Your task to perform on an android device: Search for Italian restaurants on Maps Image 0: 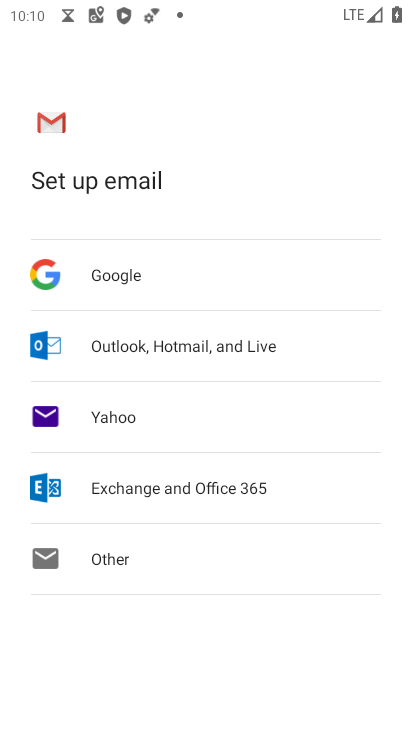
Step 0: press home button
Your task to perform on an android device: Search for Italian restaurants on Maps Image 1: 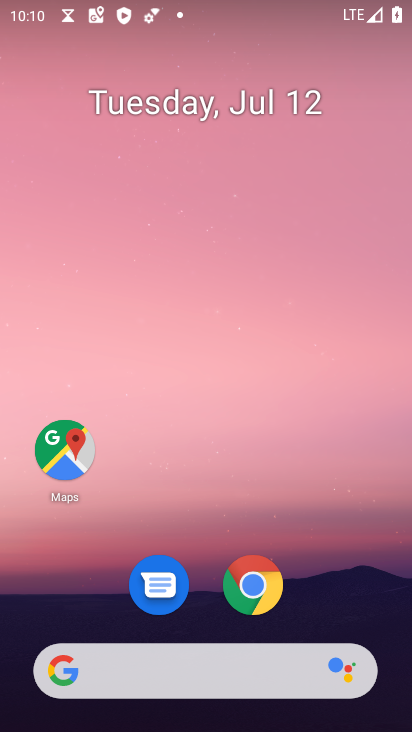
Step 1: click (66, 457)
Your task to perform on an android device: Search for Italian restaurants on Maps Image 2: 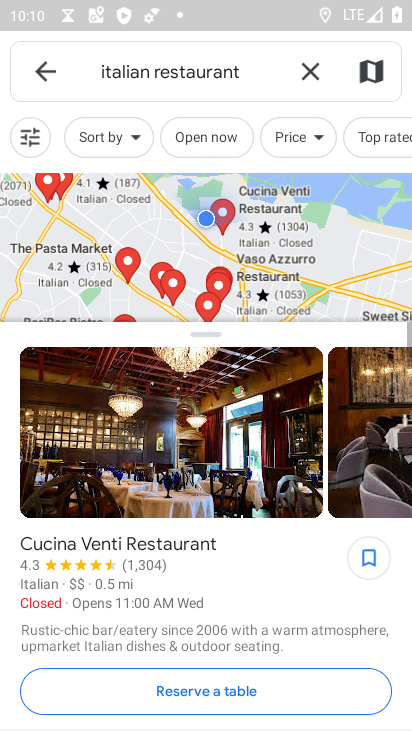
Step 2: task complete